Your task to perform on an android device: toggle location history Image 0: 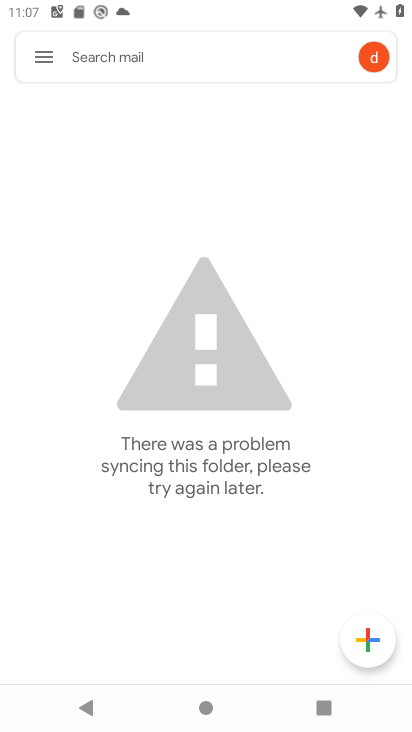
Step 0: press home button
Your task to perform on an android device: toggle location history Image 1: 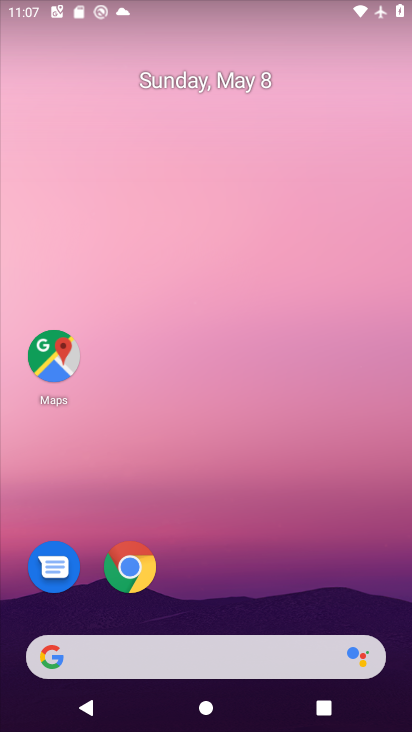
Step 1: click (47, 371)
Your task to perform on an android device: toggle location history Image 2: 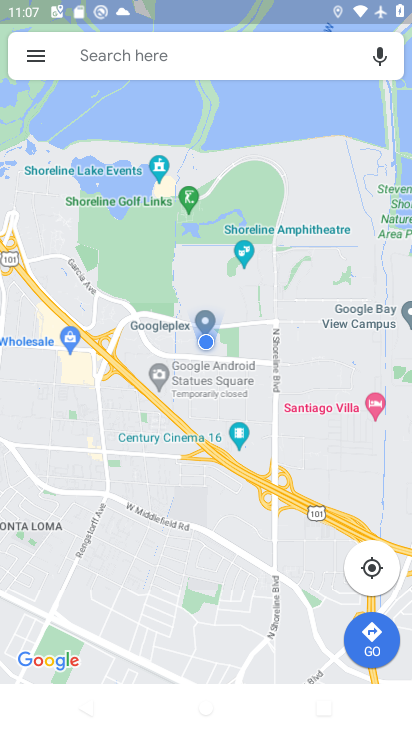
Step 2: click (35, 53)
Your task to perform on an android device: toggle location history Image 3: 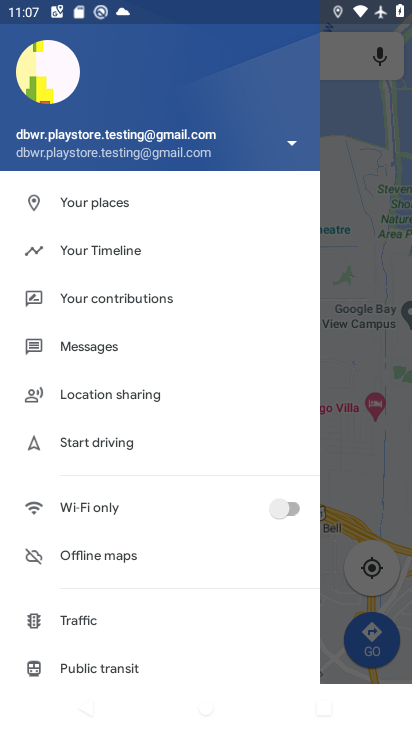
Step 3: click (82, 253)
Your task to perform on an android device: toggle location history Image 4: 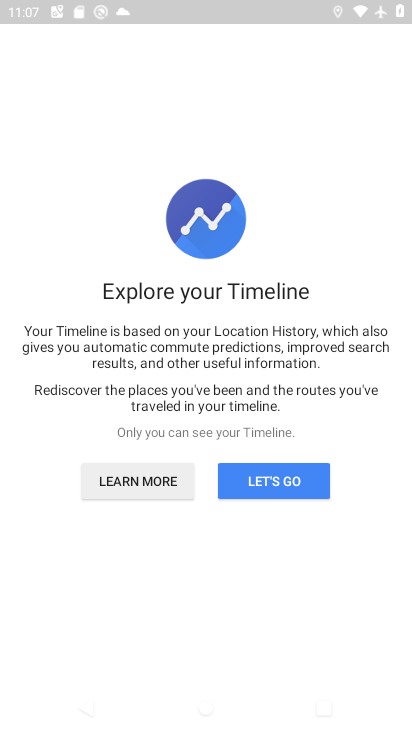
Step 4: drag from (276, 561) to (293, 258)
Your task to perform on an android device: toggle location history Image 5: 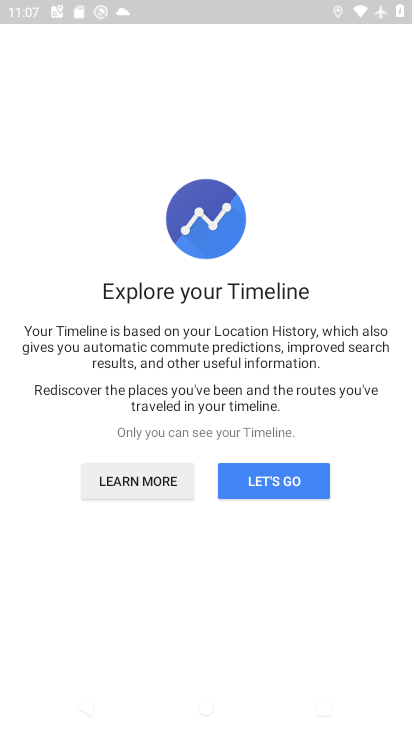
Step 5: drag from (222, 588) to (266, 191)
Your task to perform on an android device: toggle location history Image 6: 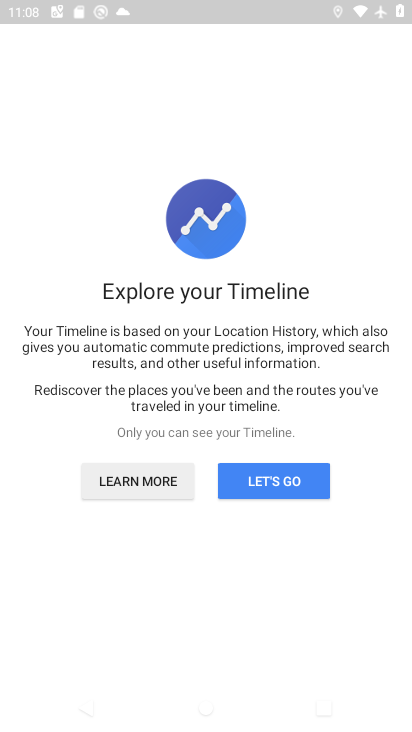
Step 6: click (264, 468)
Your task to perform on an android device: toggle location history Image 7: 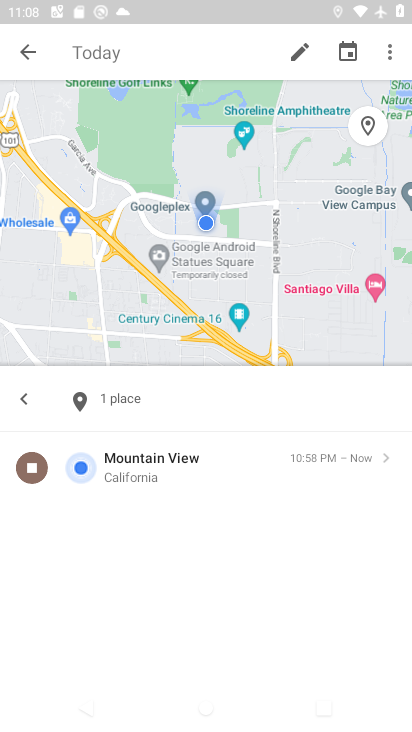
Step 7: click (395, 64)
Your task to perform on an android device: toggle location history Image 8: 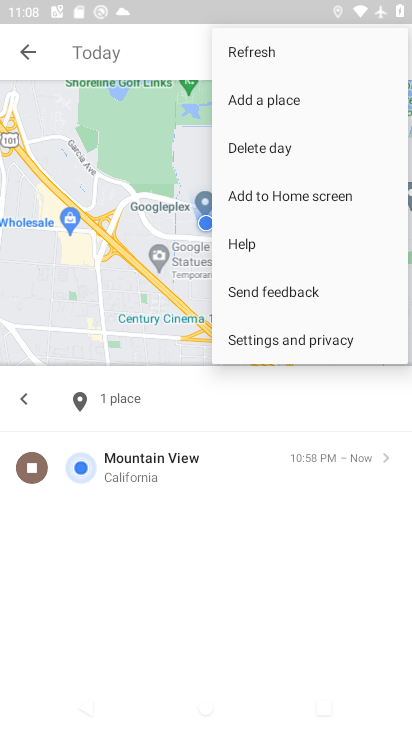
Step 8: click (323, 351)
Your task to perform on an android device: toggle location history Image 9: 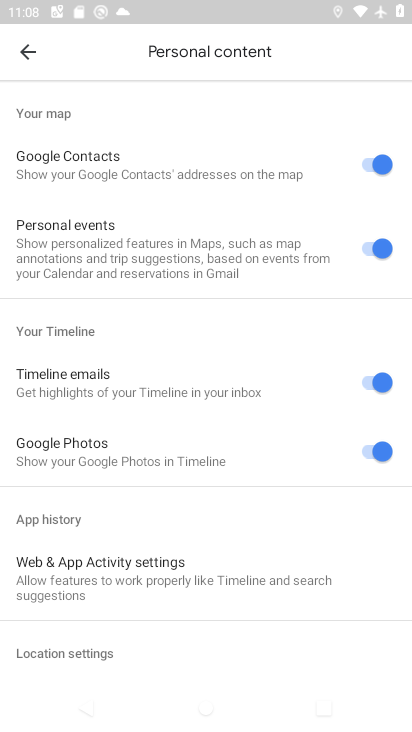
Step 9: drag from (189, 539) to (261, 206)
Your task to perform on an android device: toggle location history Image 10: 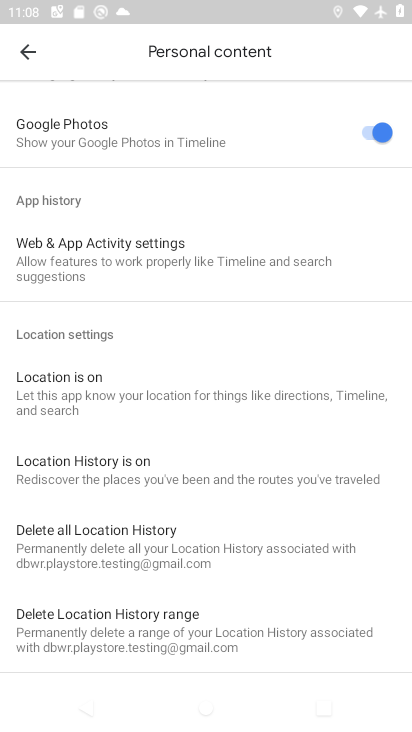
Step 10: click (84, 499)
Your task to perform on an android device: toggle location history Image 11: 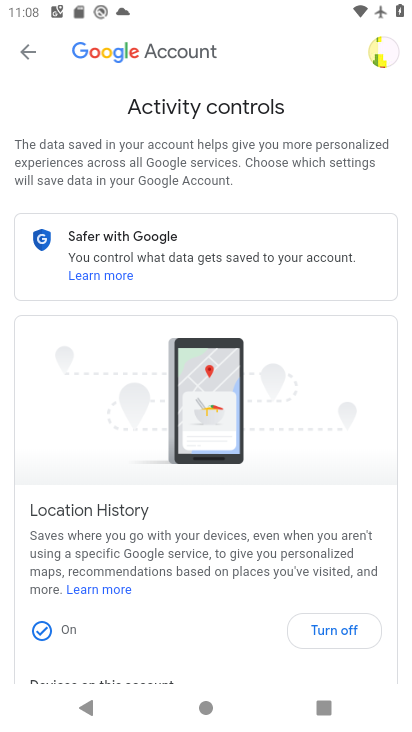
Step 11: drag from (282, 570) to (321, 329)
Your task to perform on an android device: toggle location history Image 12: 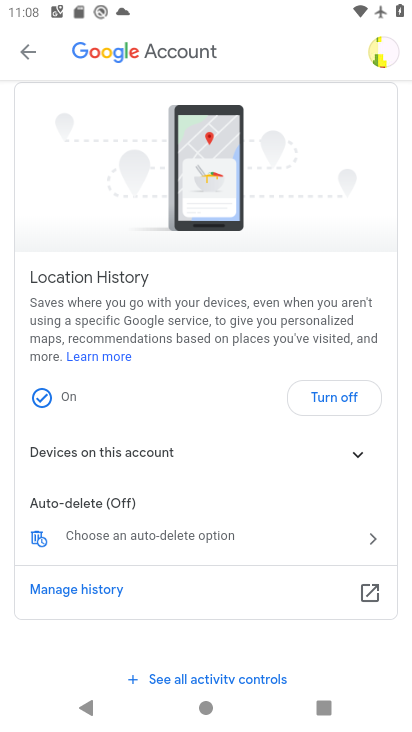
Step 12: click (355, 388)
Your task to perform on an android device: toggle location history Image 13: 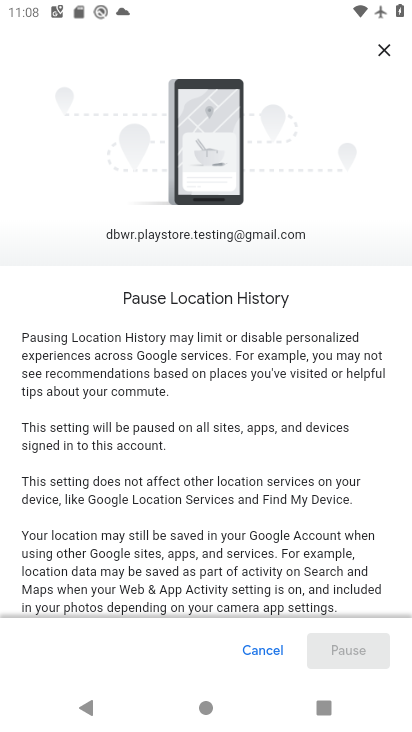
Step 13: drag from (268, 520) to (319, 127)
Your task to perform on an android device: toggle location history Image 14: 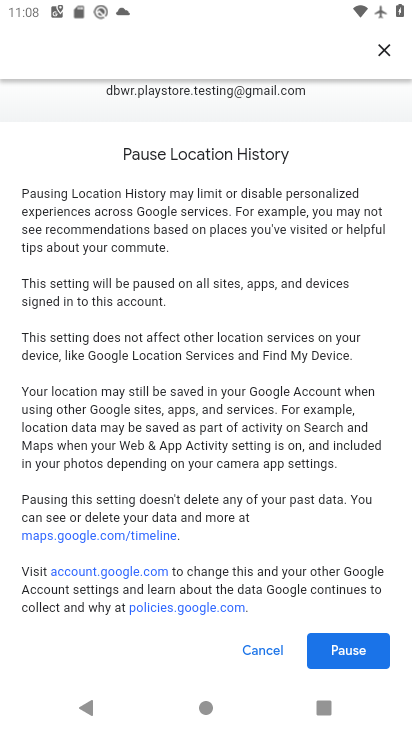
Step 14: click (366, 638)
Your task to perform on an android device: toggle location history Image 15: 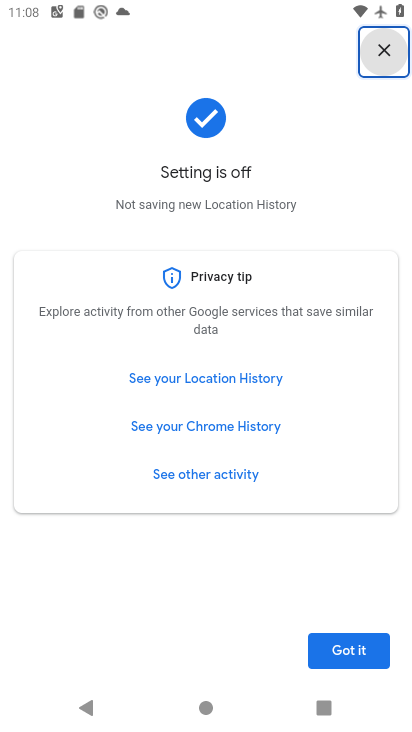
Step 15: click (322, 647)
Your task to perform on an android device: toggle location history Image 16: 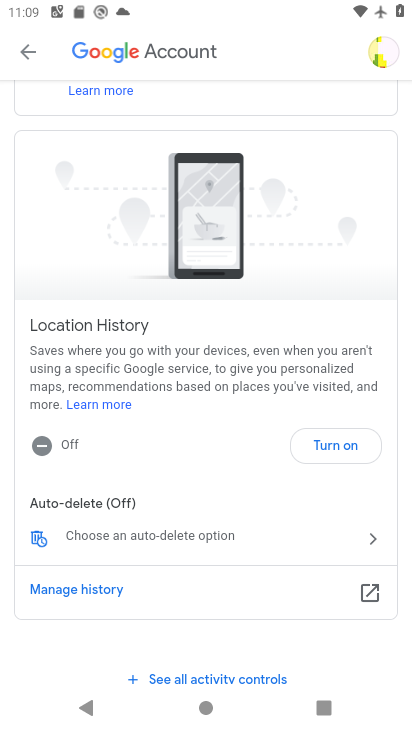
Step 16: task complete